Your task to perform on an android device: Search for sushi restaurants on Maps Image 0: 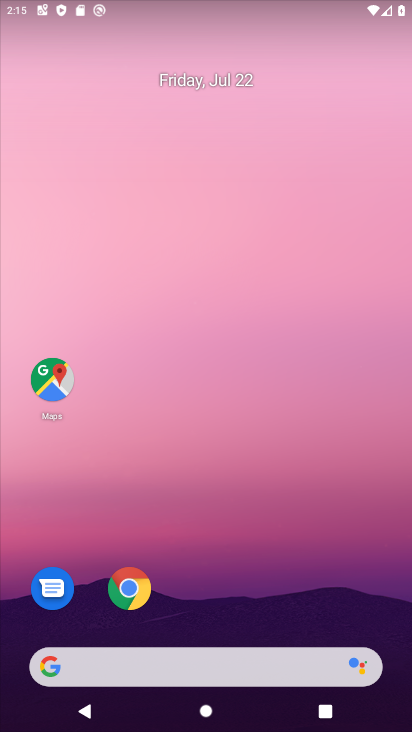
Step 0: click (53, 377)
Your task to perform on an android device: Search for sushi restaurants on Maps Image 1: 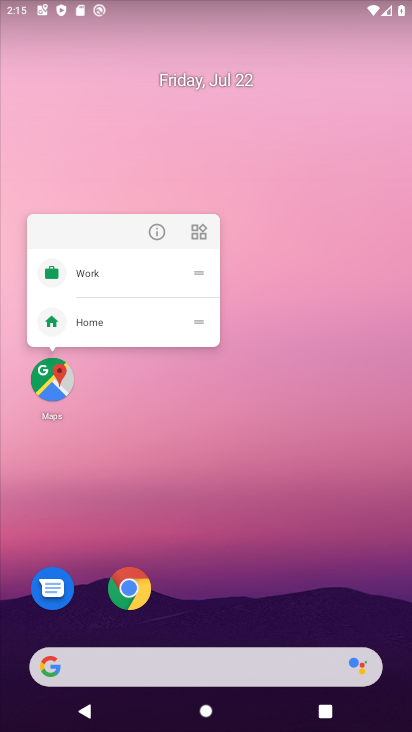
Step 1: click (51, 369)
Your task to perform on an android device: Search for sushi restaurants on Maps Image 2: 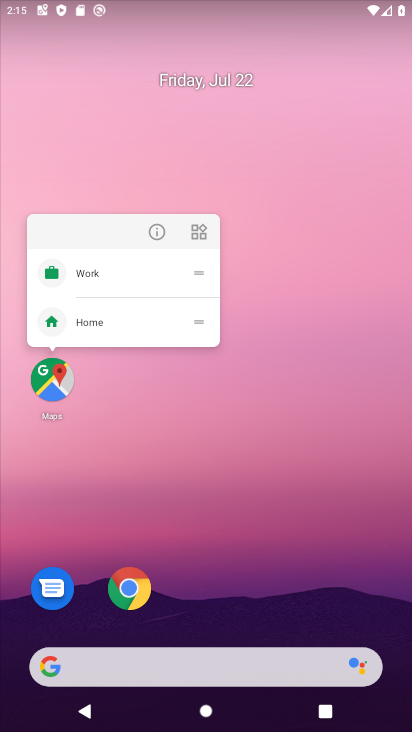
Step 2: click (50, 375)
Your task to perform on an android device: Search for sushi restaurants on Maps Image 3: 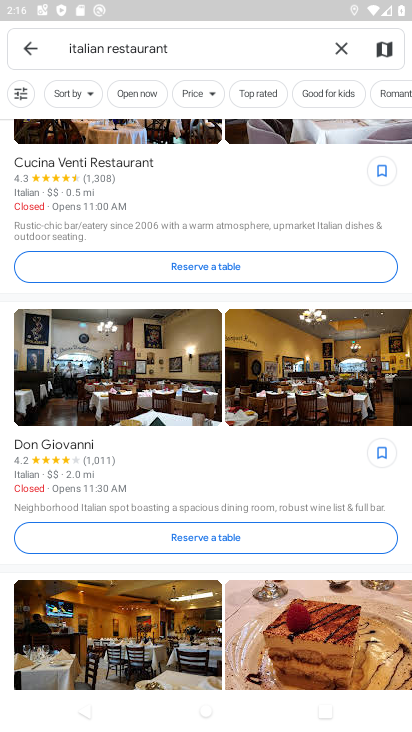
Step 3: click (340, 46)
Your task to perform on an android device: Search for sushi restaurants on Maps Image 4: 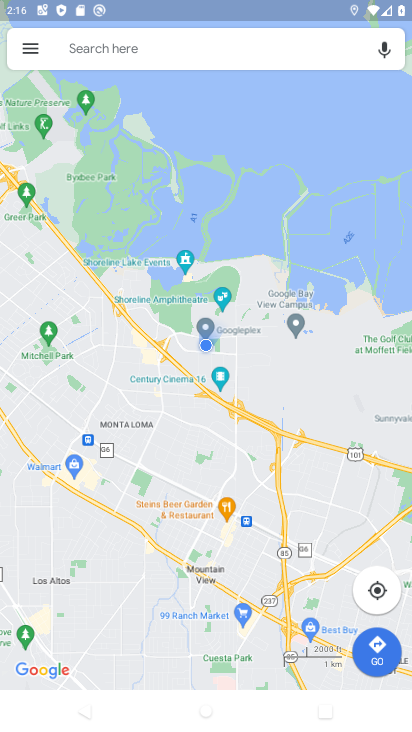
Step 4: click (144, 53)
Your task to perform on an android device: Search for sushi restaurants on Maps Image 5: 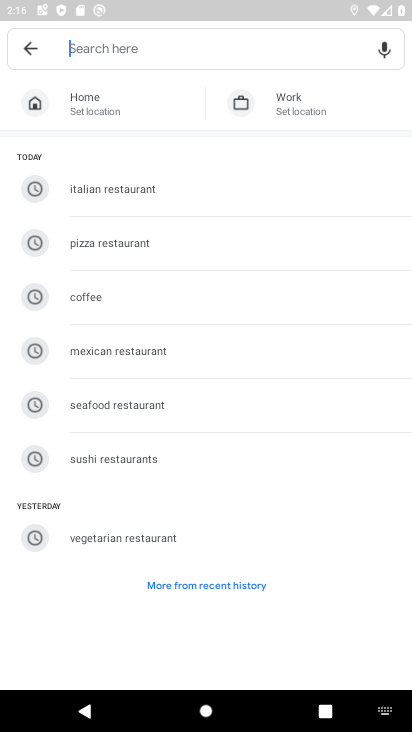
Step 5: type "sushi"
Your task to perform on an android device: Search for sushi restaurants on Maps Image 6: 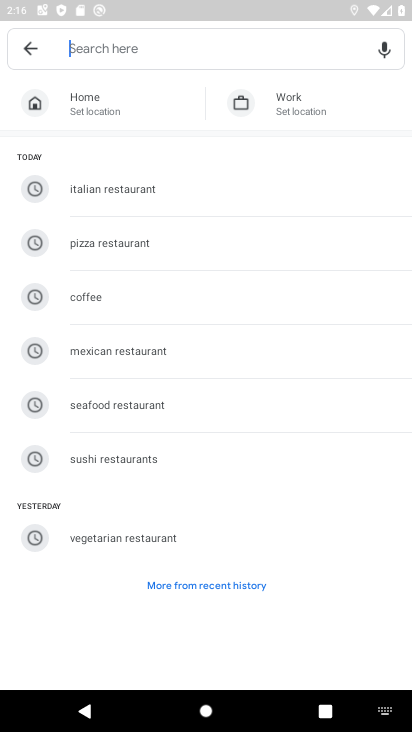
Step 6: click (145, 458)
Your task to perform on an android device: Search for sushi restaurants on Maps Image 7: 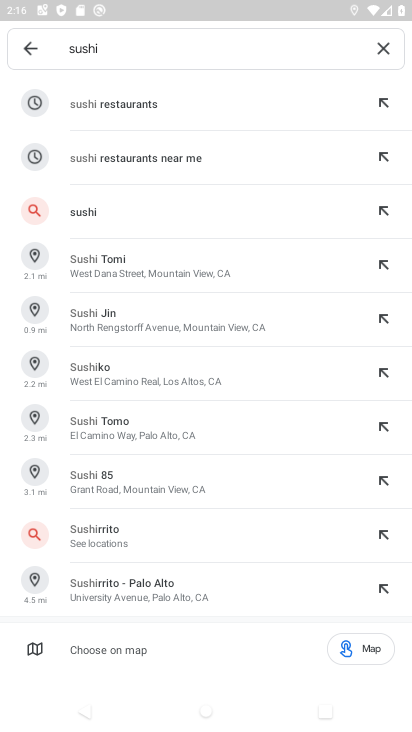
Step 7: click (142, 100)
Your task to perform on an android device: Search for sushi restaurants on Maps Image 8: 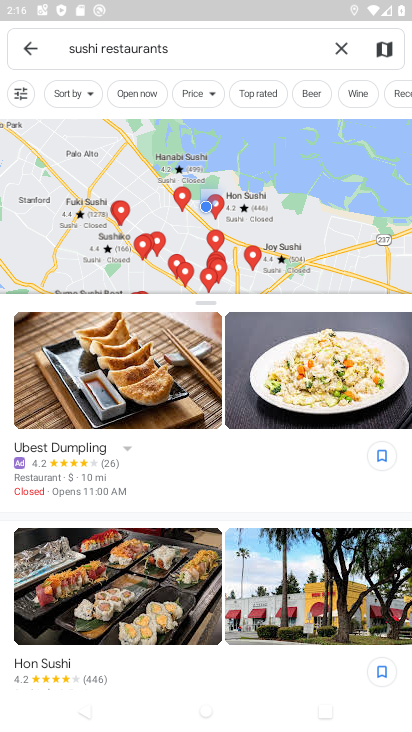
Step 8: task complete